Your task to perform on an android device: Go to Yahoo.com Image 0: 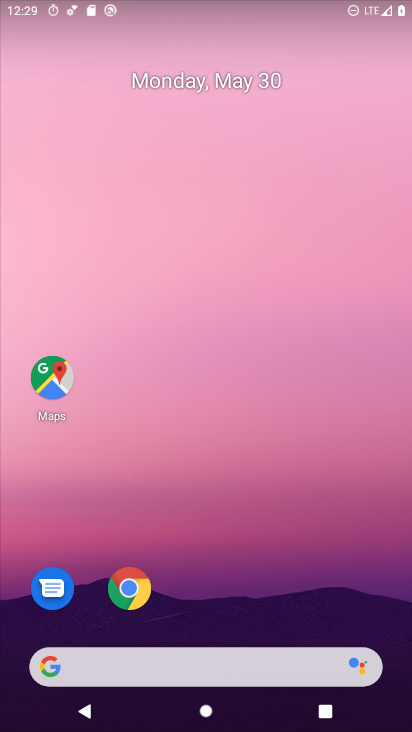
Step 0: drag from (213, 528) to (222, 157)
Your task to perform on an android device: Go to Yahoo.com Image 1: 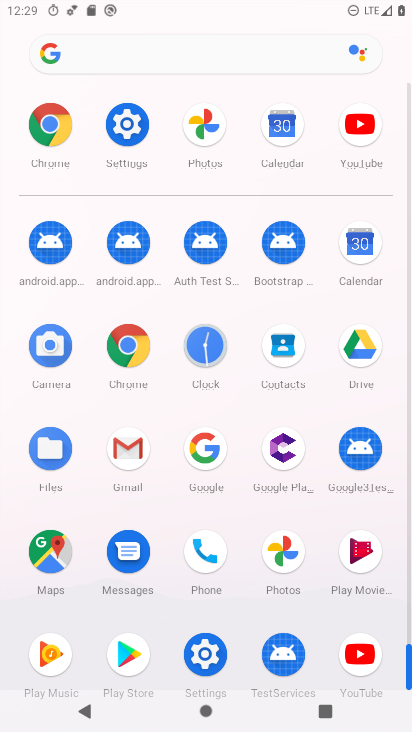
Step 1: click (127, 347)
Your task to perform on an android device: Go to Yahoo.com Image 2: 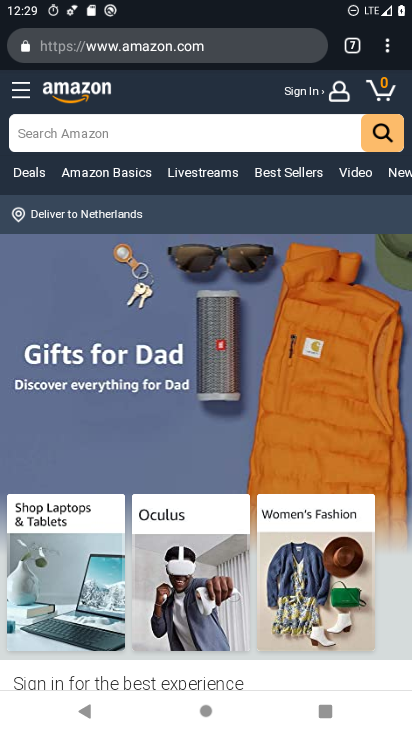
Step 2: click (393, 45)
Your task to perform on an android device: Go to Yahoo.com Image 3: 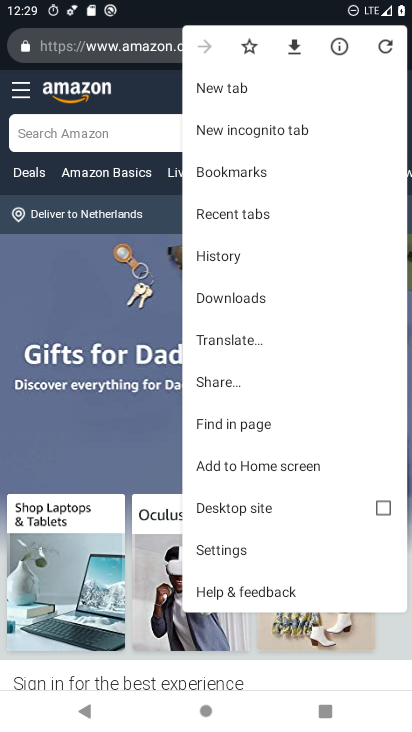
Step 3: click (258, 555)
Your task to perform on an android device: Go to Yahoo.com Image 4: 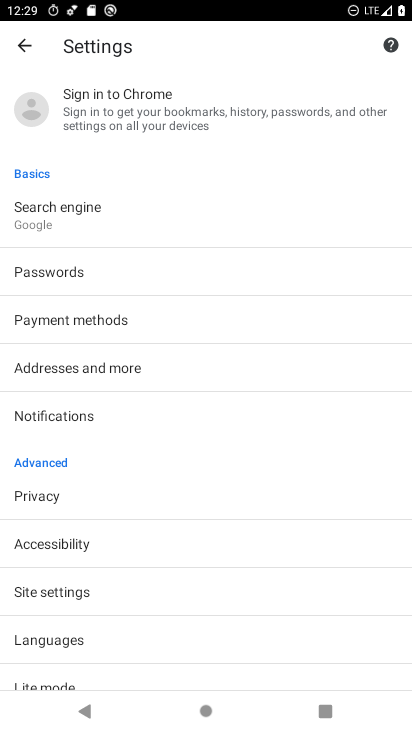
Step 4: press back button
Your task to perform on an android device: Go to Yahoo.com Image 5: 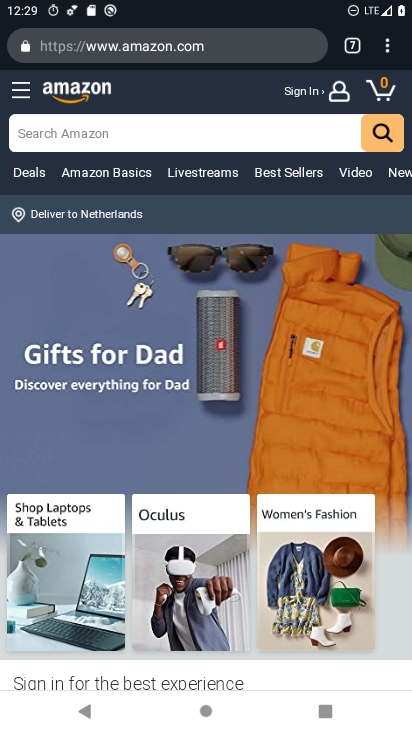
Step 5: click (368, 50)
Your task to perform on an android device: Go to Yahoo.com Image 6: 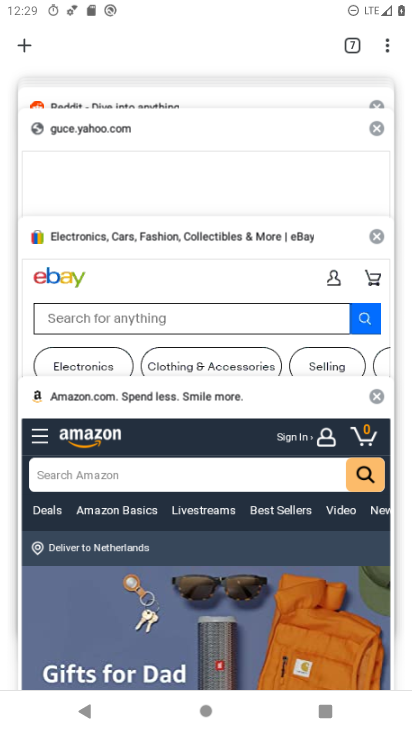
Step 6: click (19, 46)
Your task to perform on an android device: Go to Yahoo.com Image 7: 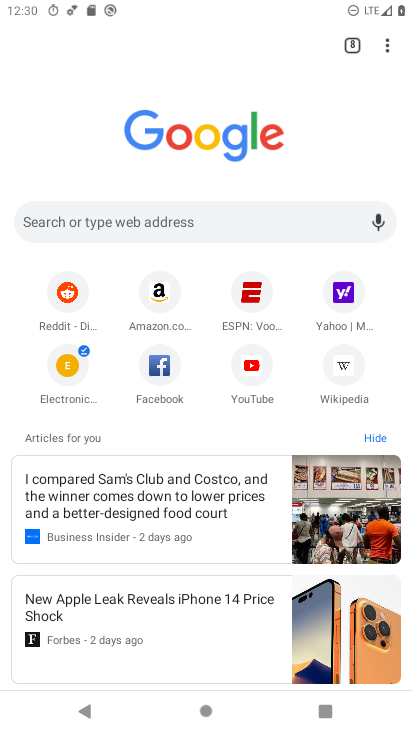
Step 7: click (148, 215)
Your task to perform on an android device: Go to Yahoo.com Image 8: 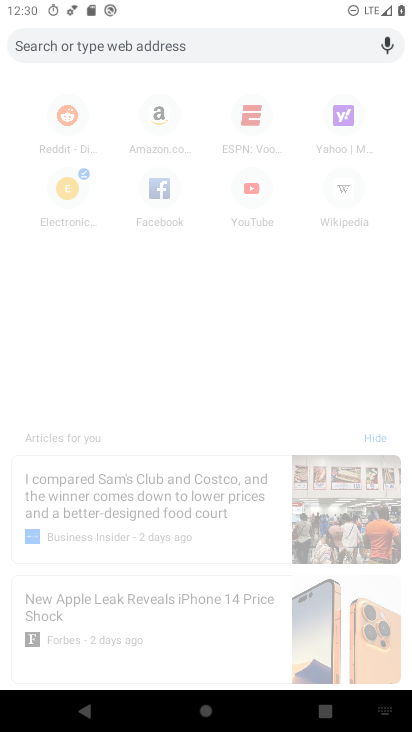
Step 8: type "Yahoo.com"
Your task to perform on an android device: Go to Yahoo.com Image 9: 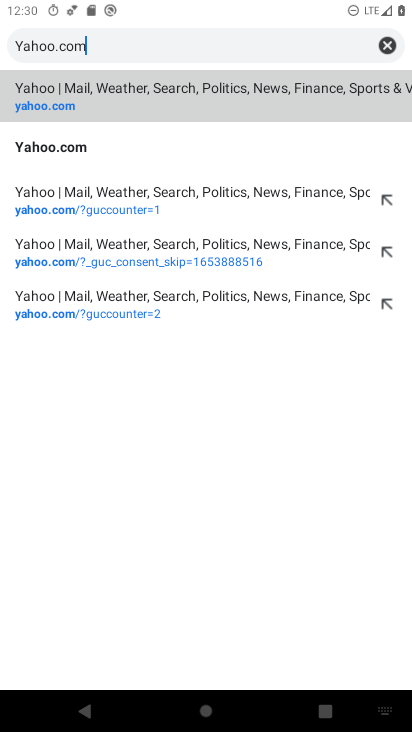
Step 9: type ""
Your task to perform on an android device: Go to Yahoo.com Image 10: 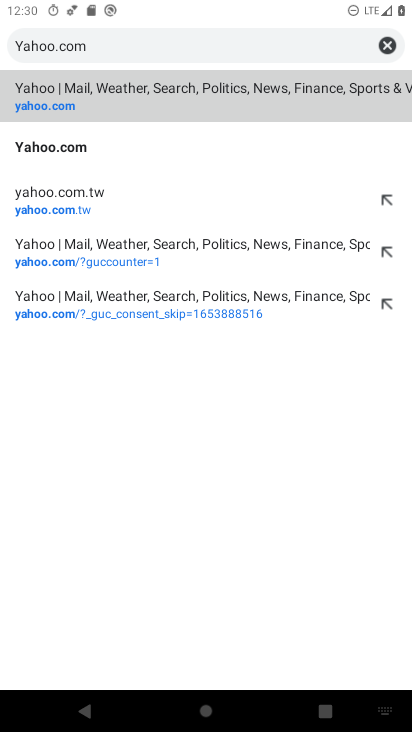
Step 10: click (125, 107)
Your task to perform on an android device: Go to Yahoo.com Image 11: 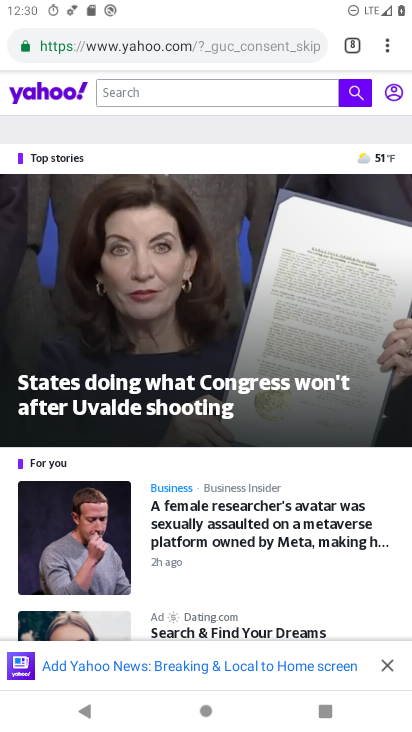
Step 11: task complete